Your task to perform on an android device: create a new album in the google photos Image 0: 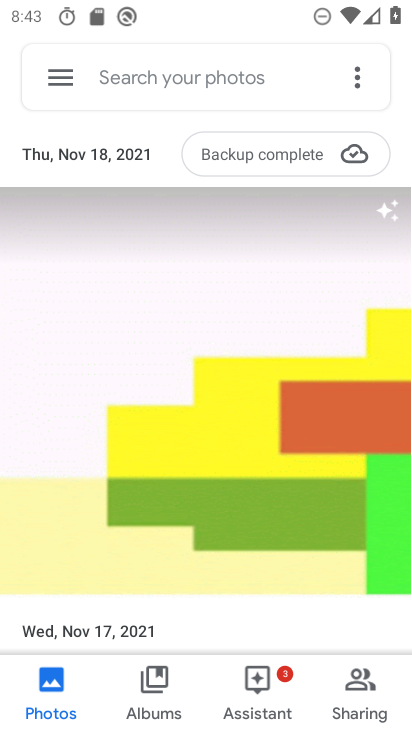
Step 0: click (354, 82)
Your task to perform on an android device: create a new album in the google photos Image 1: 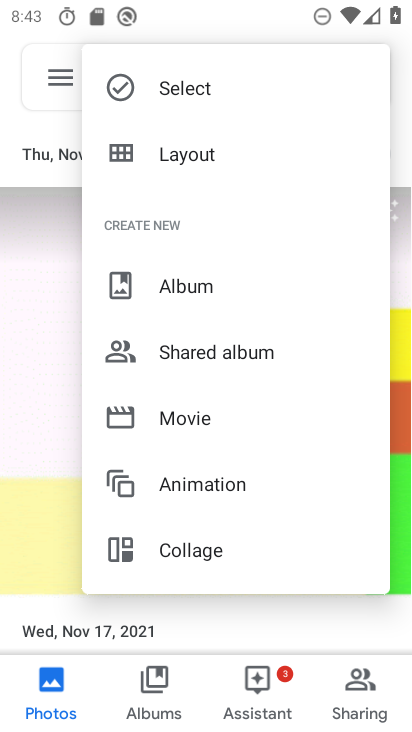
Step 1: click (184, 279)
Your task to perform on an android device: create a new album in the google photos Image 2: 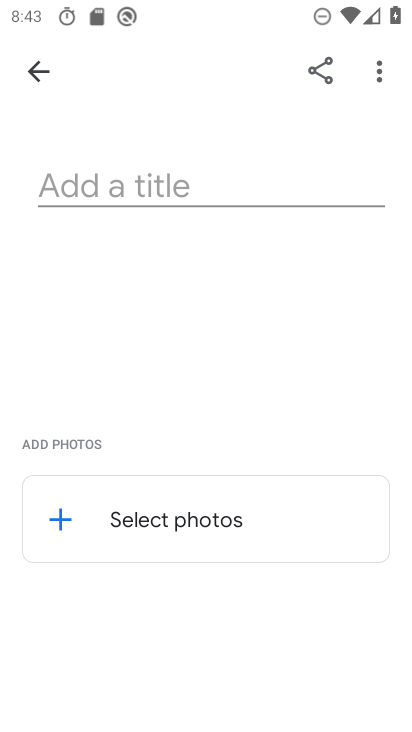
Step 2: click (168, 169)
Your task to perform on an android device: create a new album in the google photos Image 3: 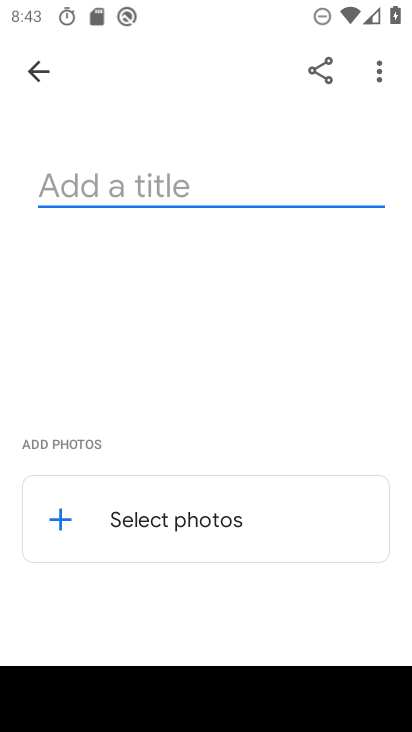
Step 3: type "Jha ji"
Your task to perform on an android device: create a new album in the google photos Image 4: 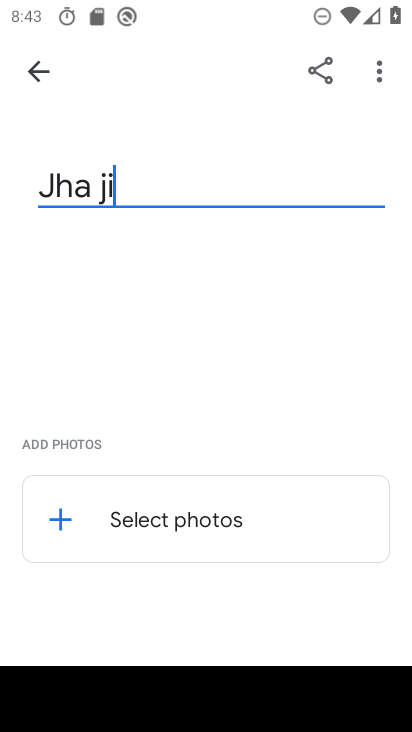
Step 4: click (69, 515)
Your task to perform on an android device: create a new album in the google photos Image 5: 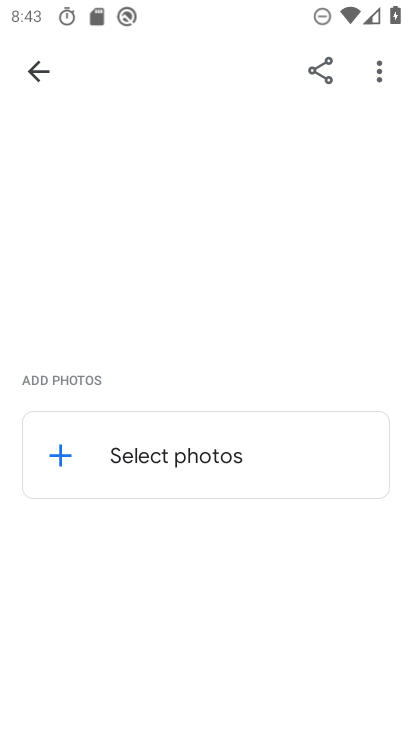
Step 5: click (93, 454)
Your task to perform on an android device: create a new album in the google photos Image 6: 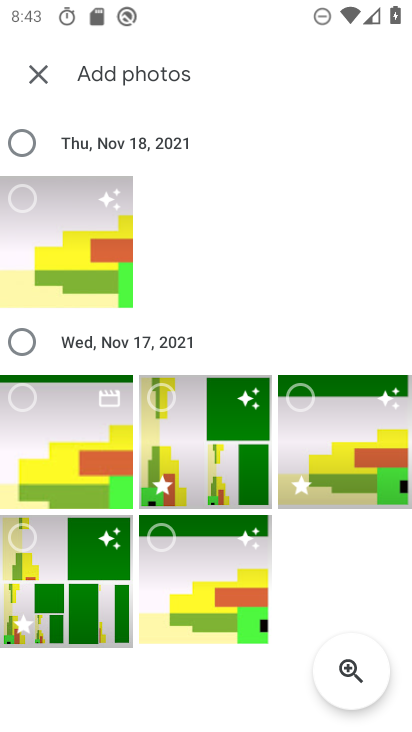
Step 6: click (22, 393)
Your task to perform on an android device: create a new album in the google photos Image 7: 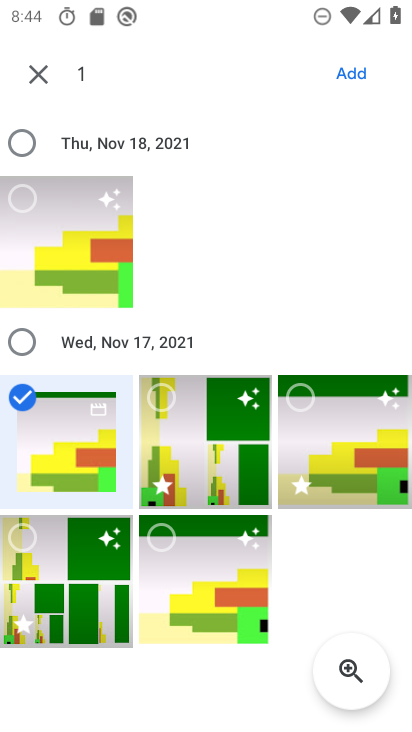
Step 7: click (164, 400)
Your task to perform on an android device: create a new album in the google photos Image 8: 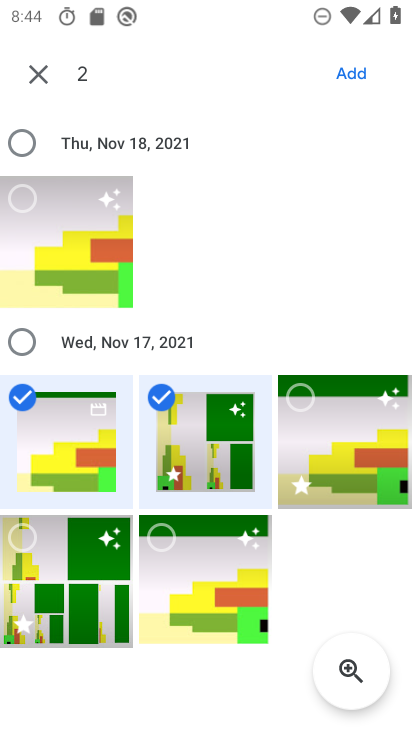
Step 8: click (308, 405)
Your task to perform on an android device: create a new album in the google photos Image 9: 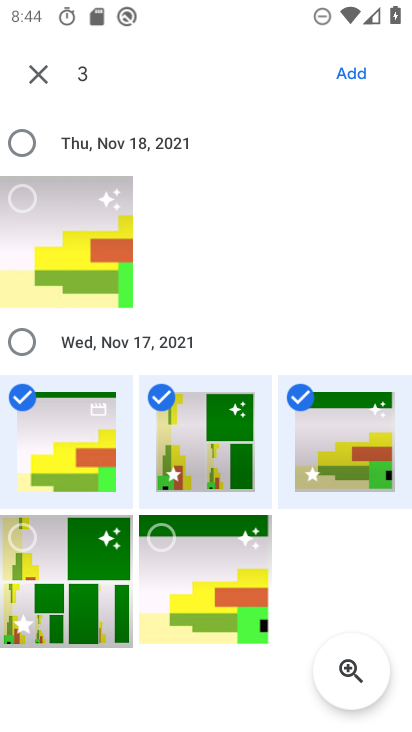
Step 9: click (346, 70)
Your task to perform on an android device: create a new album in the google photos Image 10: 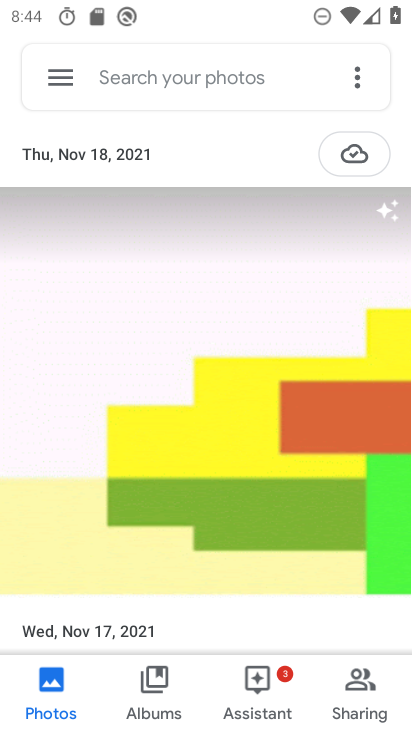
Step 10: task complete